Your task to perform on an android device: Open Chrome and go to the settings page Image 0: 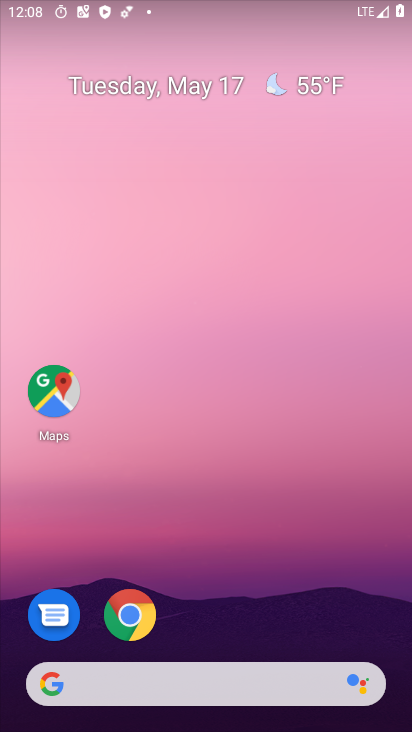
Step 0: press home button
Your task to perform on an android device: Open Chrome and go to the settings page Image 1: 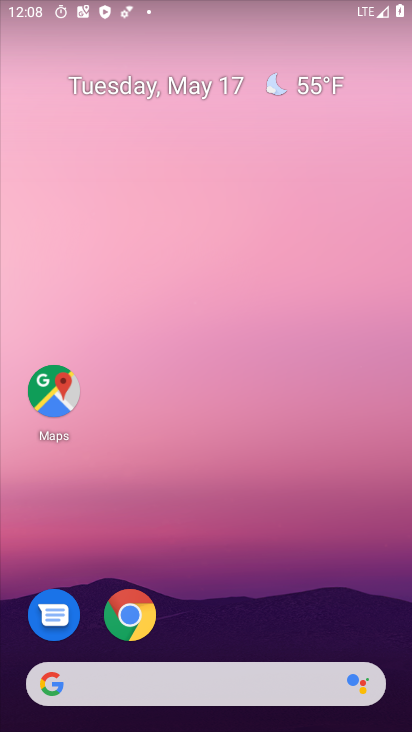
Step 1: click (126, 628)
Your task to perform on an android device: Open Chrome and go to the settings page Image 2: 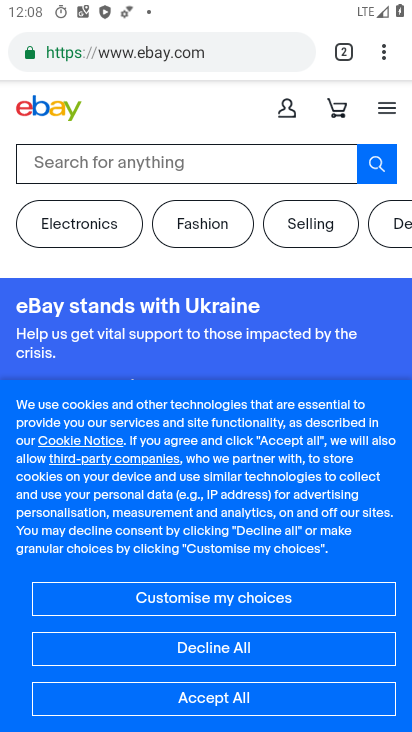
Step 2: task complete